Your task to perform on an android device: Open settings on Google Maps Image 0: 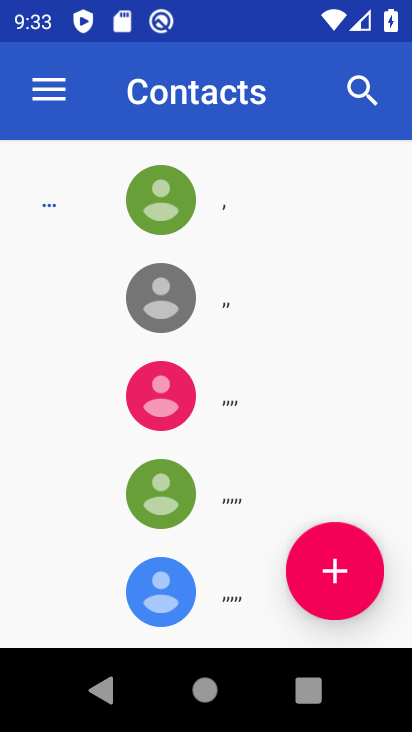
Step 0: press home button
Your task to perform on an android device: Open settings on Google Maps Image 1: 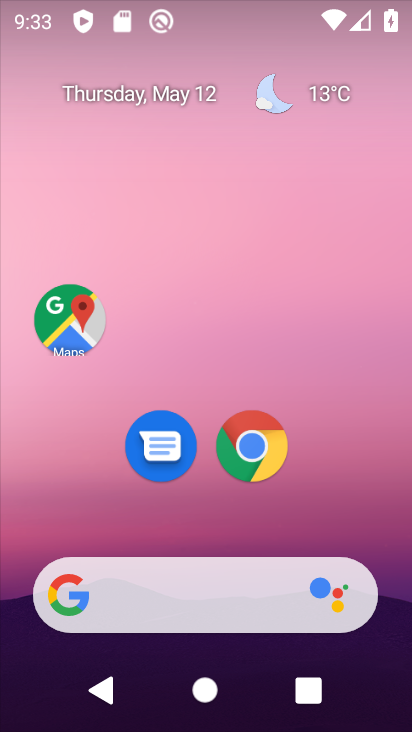
Step 1: drag from (197, 680) to (145, 107)
Your task to perform on an android device: Open settings on Google Maps Image 2: 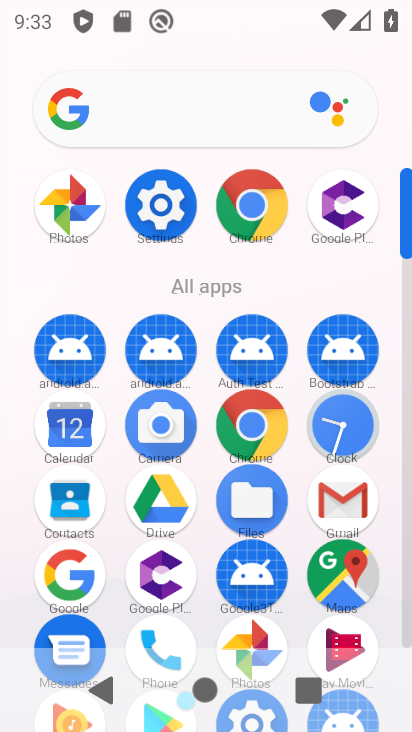
Step 2: click (357, 589)
Your task to perform on an android device: Open settings on Google Maps Image 3: 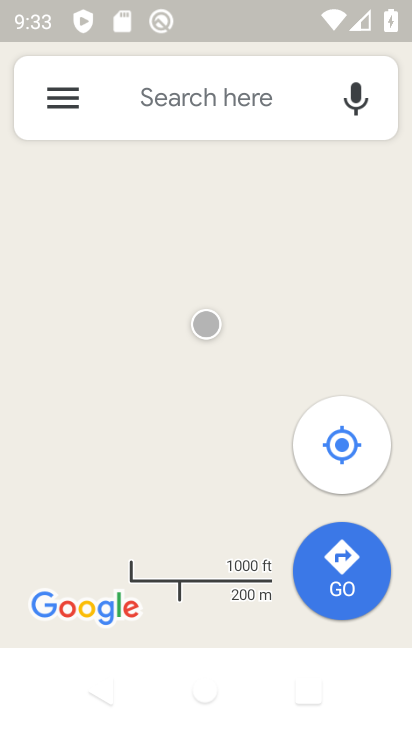
Step 3: click (64, 91)
Your task to perform on an android device: Open settings on Google Maps Image 4: 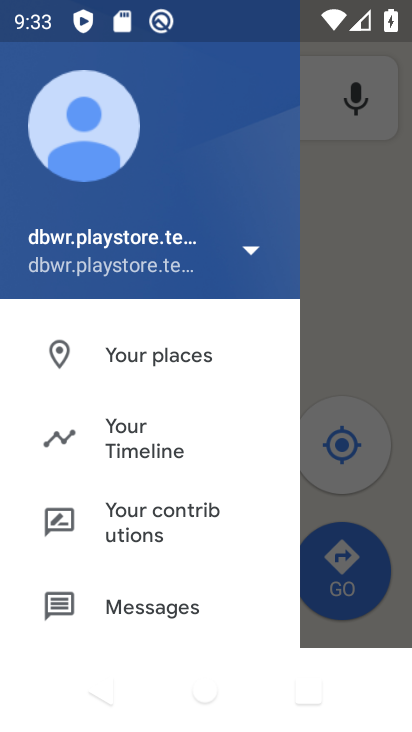
Step 4: drag from (198, 597) to (225, 193)
Your task to perform on an android device: Open settings on Google Maps Image 5: 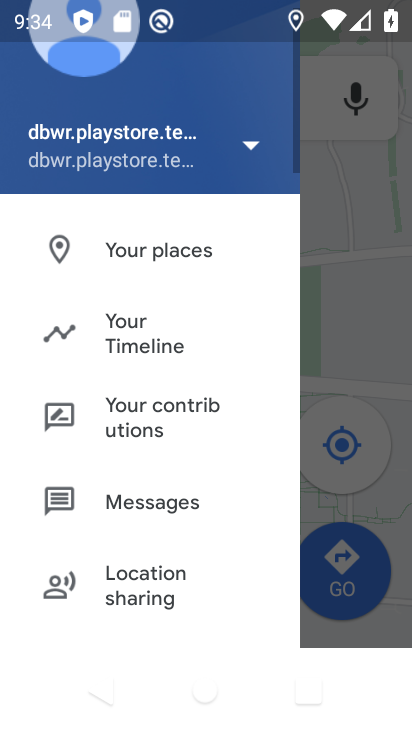
Step 5: drag from (184, 250) to (204, 586)
Your task to perform on an android device: Open settings on Google Maps Image 6: 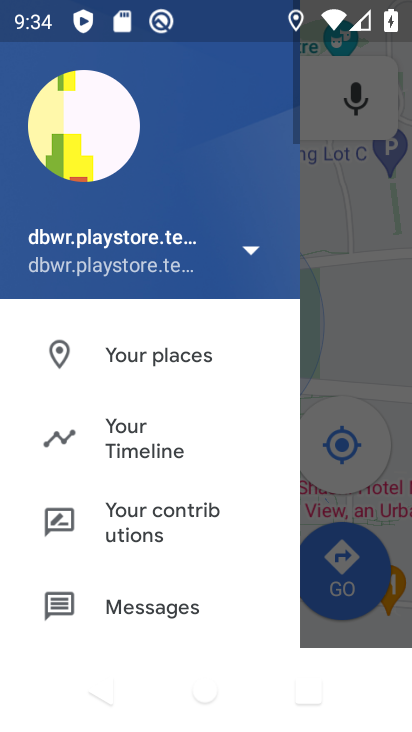
Step 6: drag from (211, 581) to (239, 257)
Your task to perform on an android device: Open settings on Google Maps Image 7: 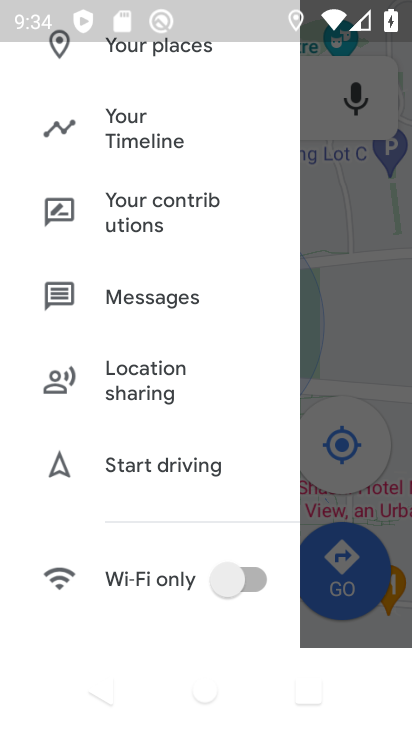
Step 7: drag from (162, 207) to (136, 679)
Your task to perform on an android device: Open settings on Google Maps Image 8: 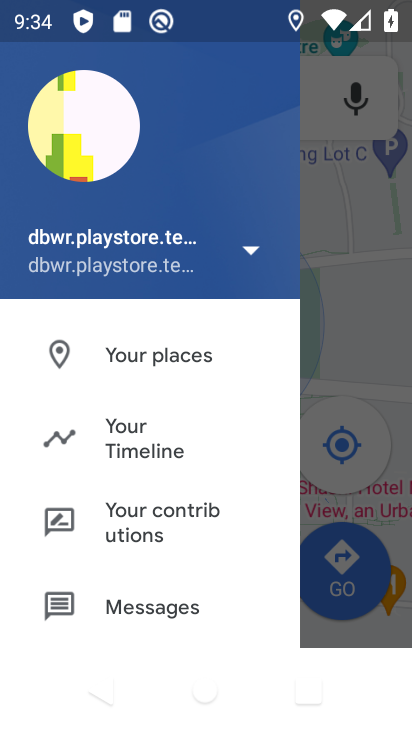
Step 8: click (207, 446)
Your task to perform on an android device: Open settings on Google Maps Image 9: 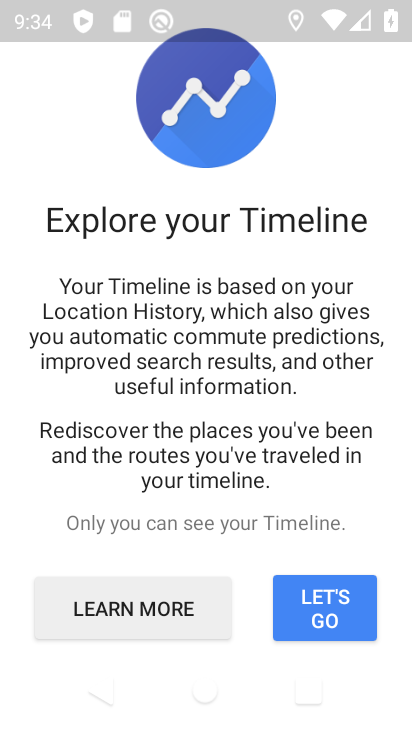
Step 9: drag from (244, 587) to (226, 287)
Your task to perform on an android device: Open settings on Google Maps Image 10: 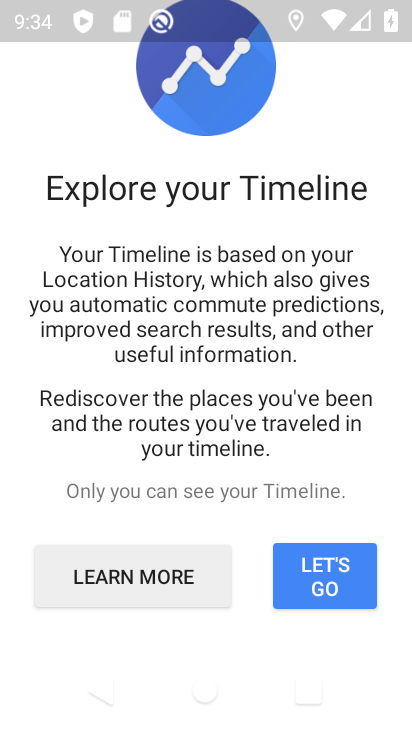
Step 10: click (331, 579)
Your task to perform on an android device: Open settings on Google Maps Image 11: 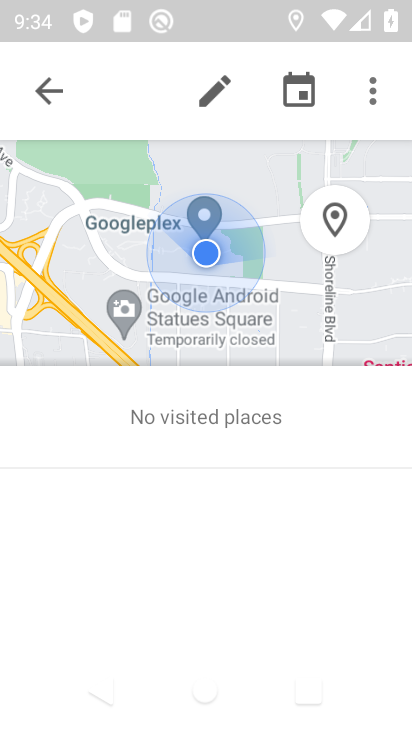
Step 11: click (371, 91)
Your task to perform on an android device: Open settings on Google Maps Image 12: 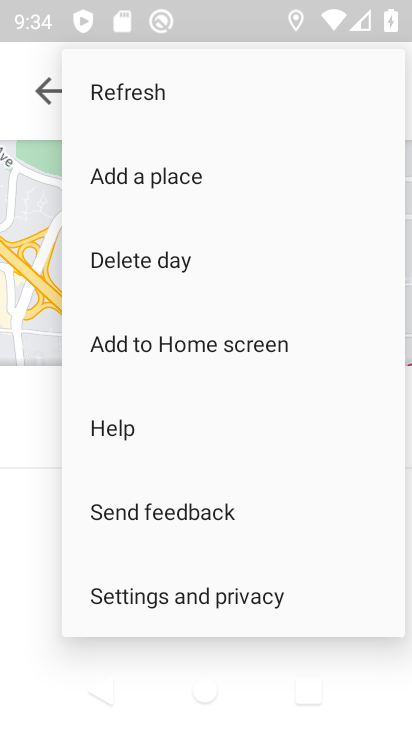
Step 12: click (181, 597)
Your task to perform on an android device: Open settings on Google Maps Image 13: 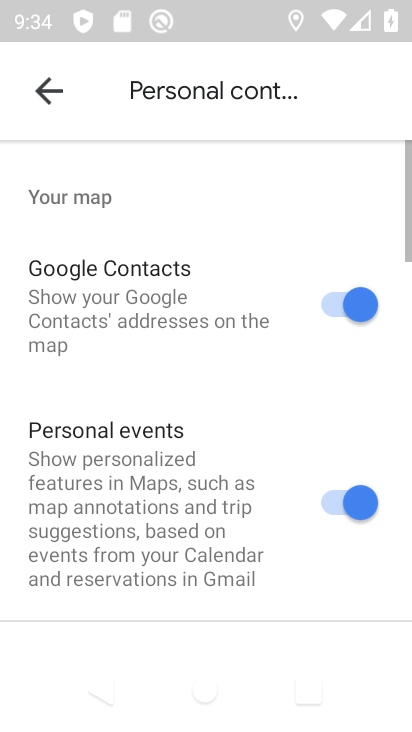
Step 13: task complete